Your task to perform on an android device: Open privacy settings Image 0: 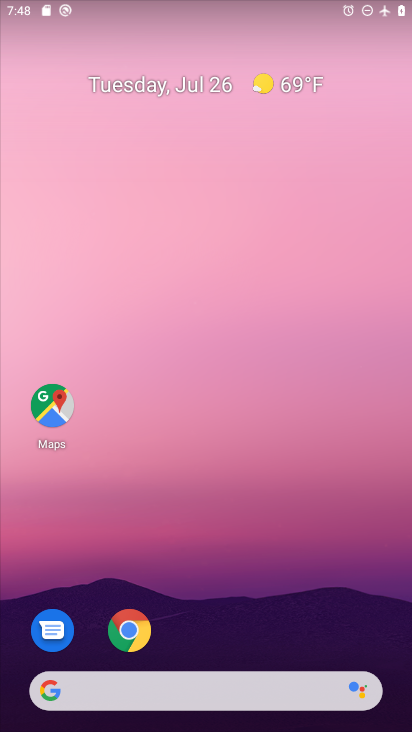
Step 0: drag from (281, 615) to (242, 29)
Your task to perform on an android device: Open privacy settings Image 1: 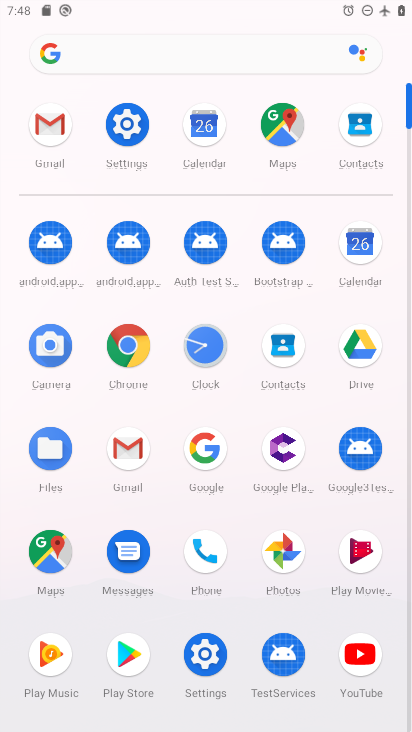
Step 1: click (212, 648)
Your task to perform on an android device: Open privacy settings Image 2: 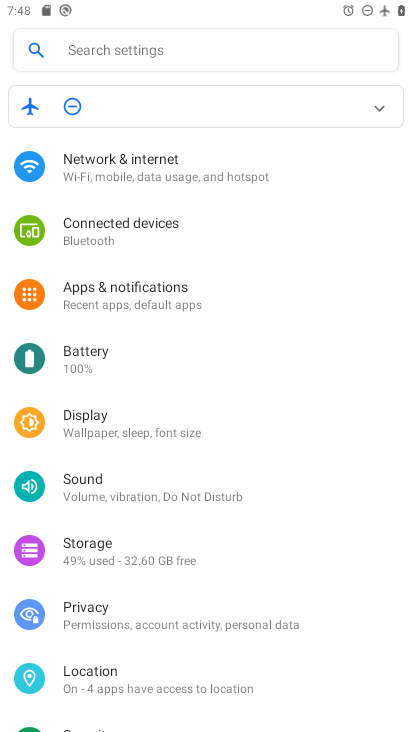
Step 2: click (159, 616)
Your task to perform on an android device: Open privacy settings Image 3: 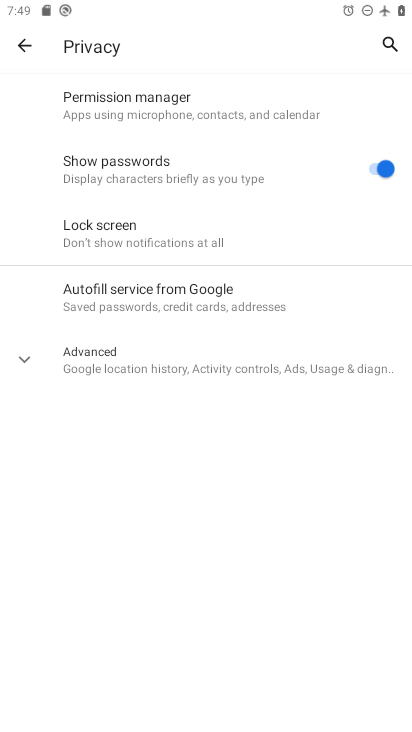
Step 3: task complete